Your task to perform on an android device: search for starred emails in the gmail app Image 0: 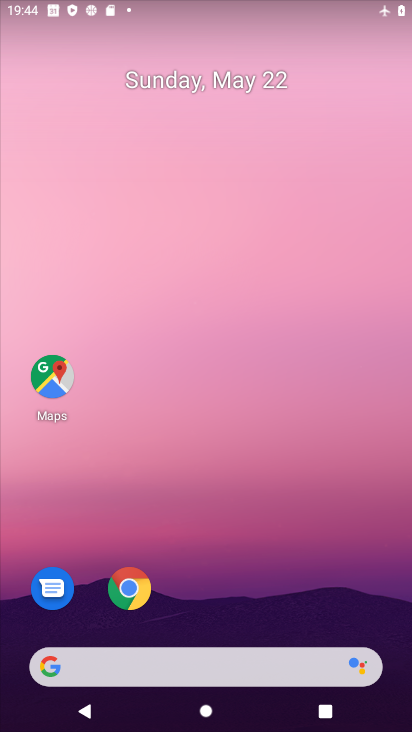
Step 0: drag from (206, 503) to (169, 11)
Your task to perform on an android device: search for starred emails in the gmail app Image 1: 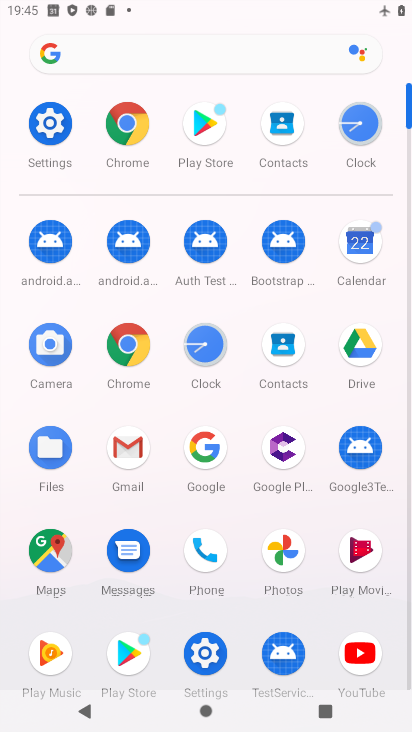
Step 1: click (117, 445)
Your task to perform on an android device: search for starred emails in the gmail app Image 2: 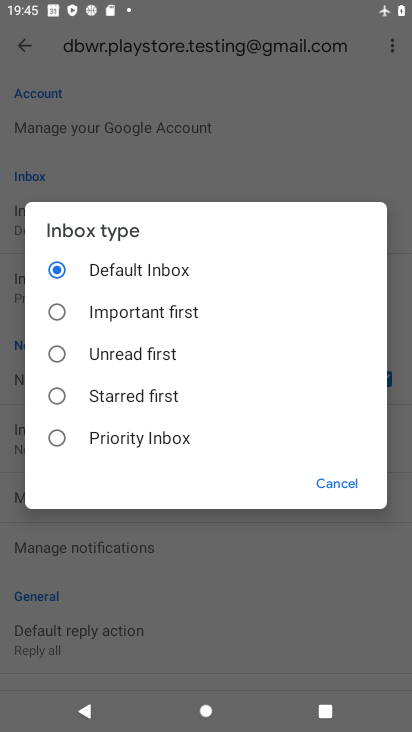
Step 2: click (314, 487)
Your task to perform on an android device: search for starred emails in the gmail app Image 3: 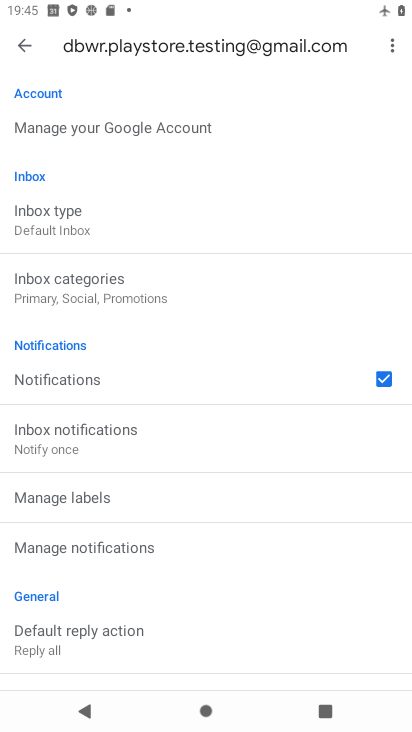
Step 3: click (24, 38)
Your task to perform on an android device: search for starred emails in the gmail app Image 4: 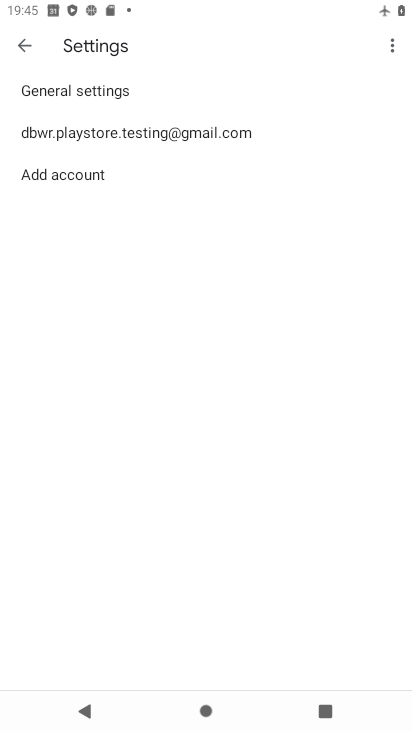
Step 4: click (17, 43)
Your task to perform on an android device: search for starred emails in the gmail app Image 5: 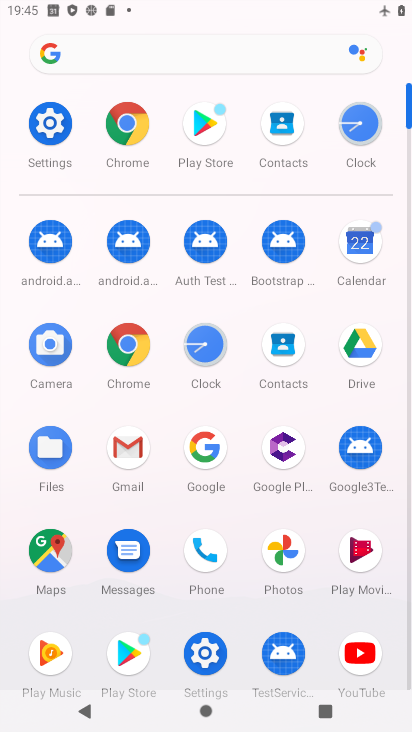
Step 5: click (125, 451)
Your task to perform on an android device: search for starred emails in the gmail app Image 6: 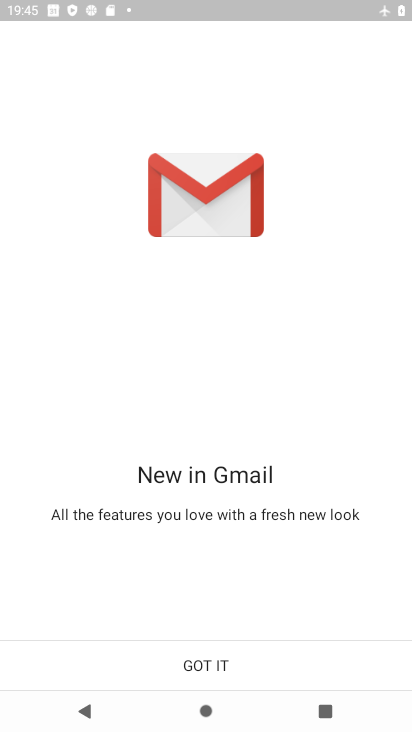
Step 6: click (205, 665)
Your task to perform on an android device: search for starred emails in the gmail app Image 7: 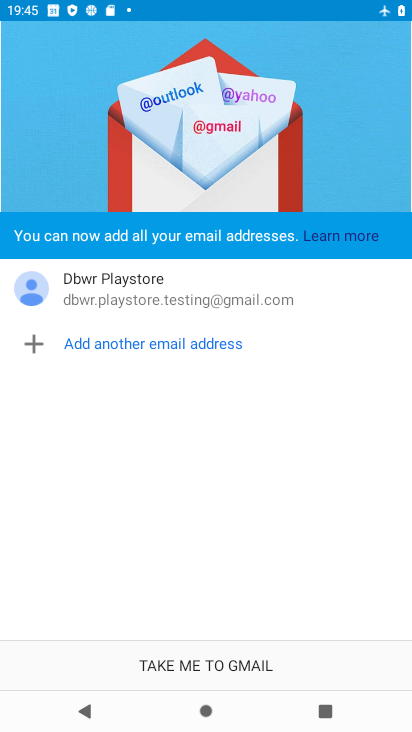
Step 7: click (205, 665)
Your task to perform on an android device: search for starred emails in the gmail app Image 8: 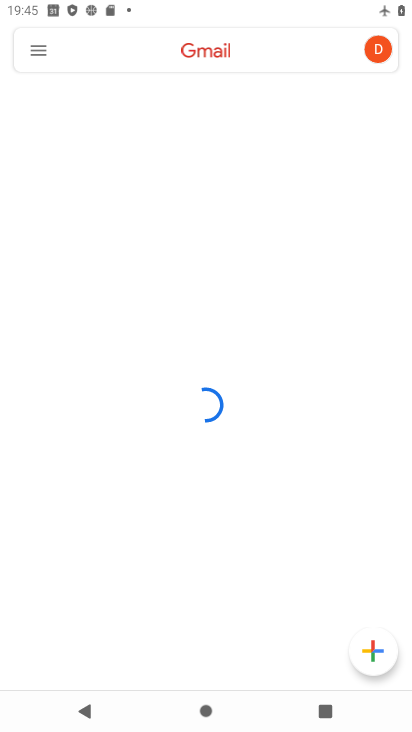
Step 8: click (42, 47)
Your task to perform on an android device: search for starred emails in the gmail app Image 9: 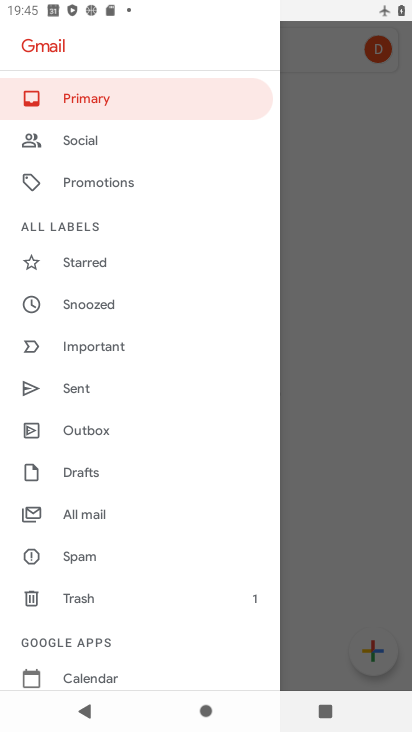
Step 9: click (93, 250)
Your task to perform on an android device: search for starred emails in the gmail app Image 10: 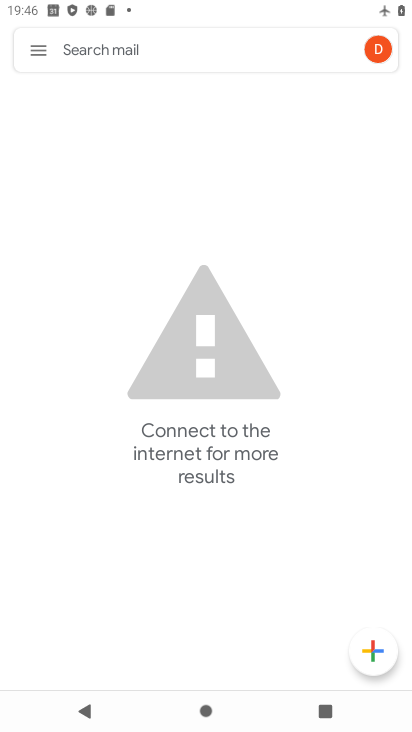
Step 10: task complete